Your task to perform on an android device: What is the news today? Image 0: 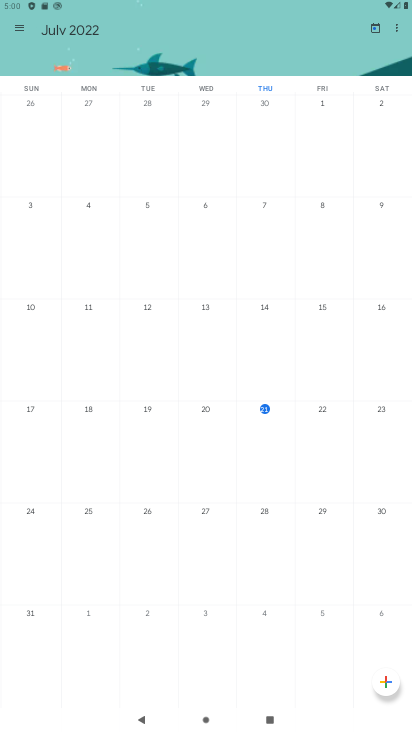
Step 0: press back button
Your task to perform on an android device: What is the news today? Image 1: 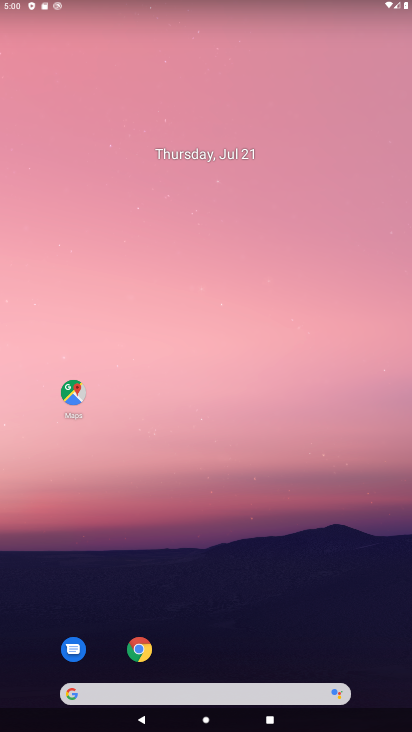
Step 1: click (205, 684)
Your task to perform on an android device: What is the news today? Image 2: 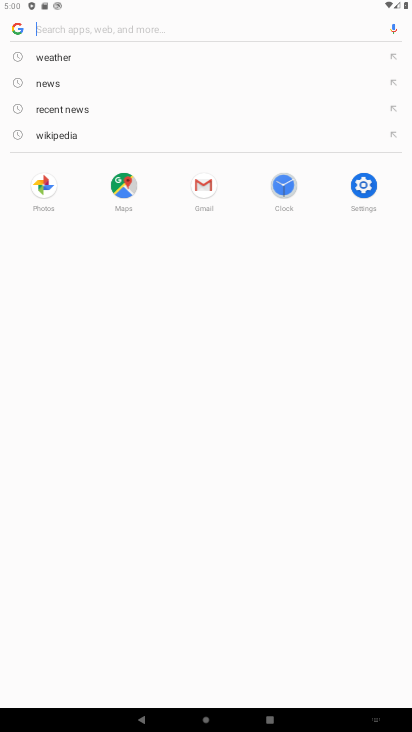
Step 2: click (54, 86)
Your task to perform on an android device: What is the news today? Image 3: 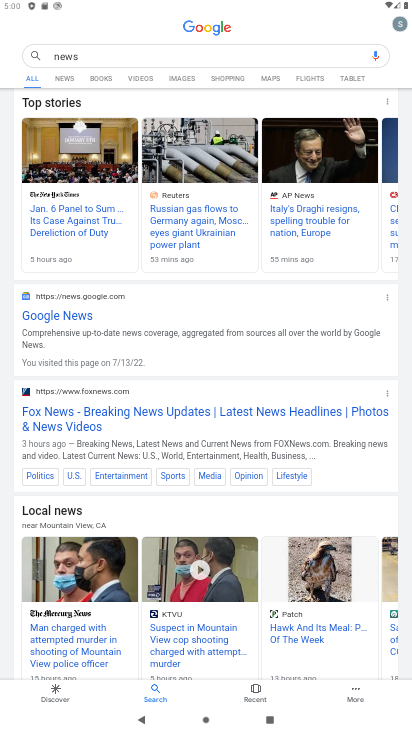
Step 3: task complete